Your task to perform on an android device: toggle improve location accuracy Image 0: 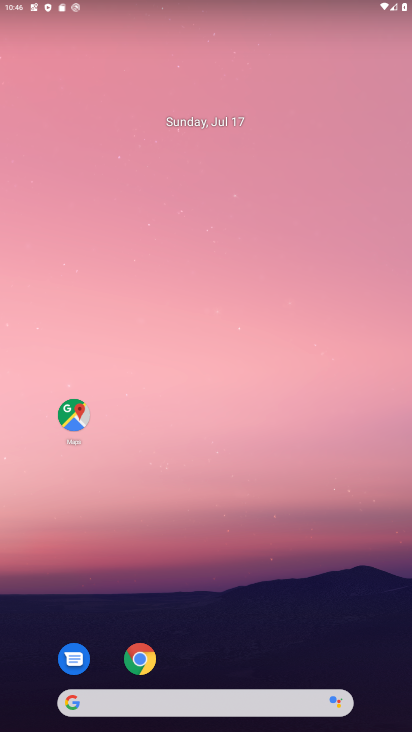
Step 0: drag from (292, 391) to (252, 103)
Your task to perform on an android device: toggle improve location accuracy Image 1: 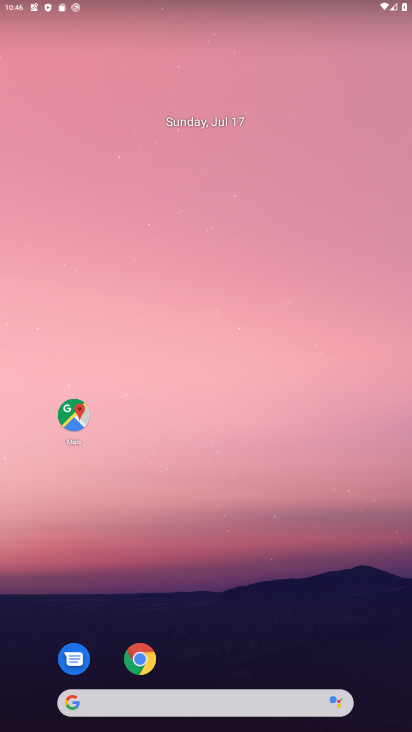
Step 1: drag from (305, 628) to (262, 65)
Your task to perform on an android device: toggle improve location accuracy Image 2: 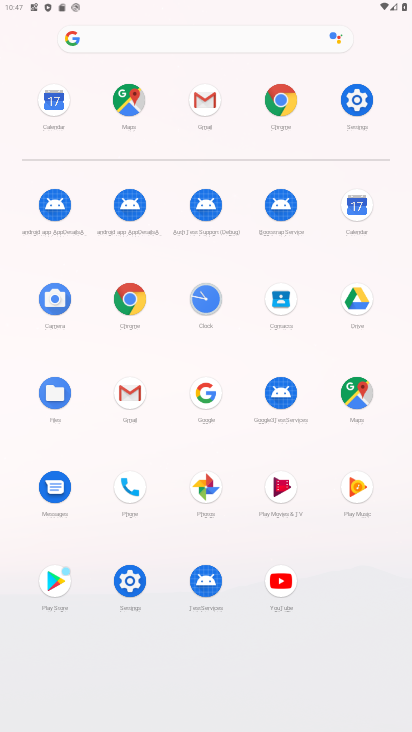
Step 2: click (352, 103)
Your task to perform on an android device: toggle improve location accuracy Image 3: 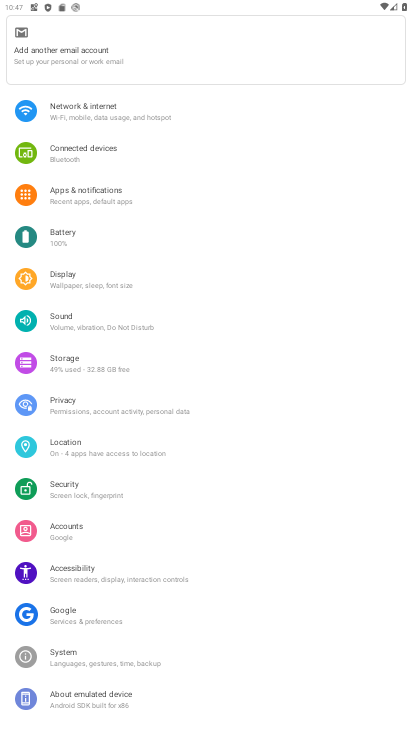
Step 3: click (104, 447)
Your task to perform on an android device: toggle improve location accuracy Image 4: 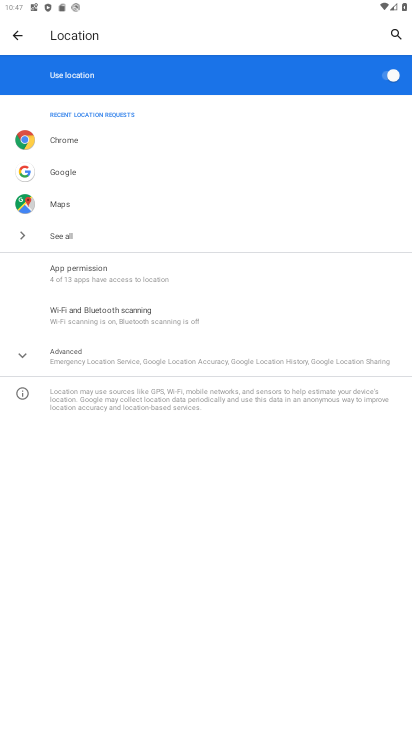
Step 4: click (135, 363)
Your task to perform on an android device: toggle improve location accuracy Image 5: 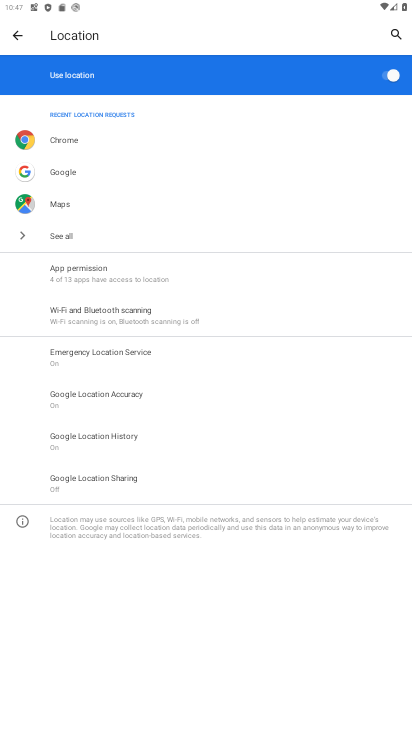
Step 5: click (124, 403)
Your task to perform on an android device: toggle improve location accuracy Image 6: 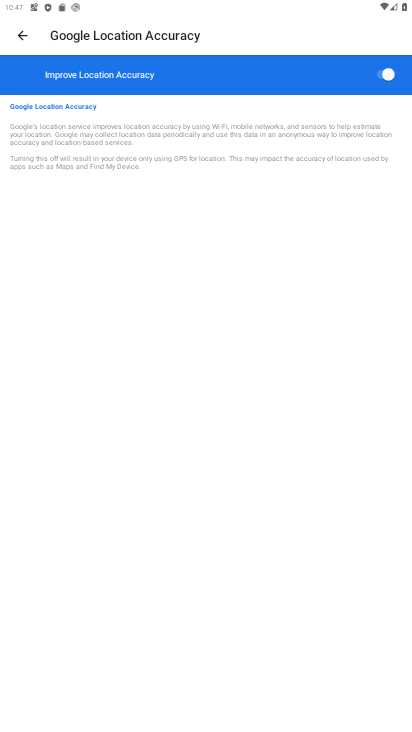
Step 6: click (383, 72)
Your task to perform on an android device: toggle improve location accuracy Image 7: 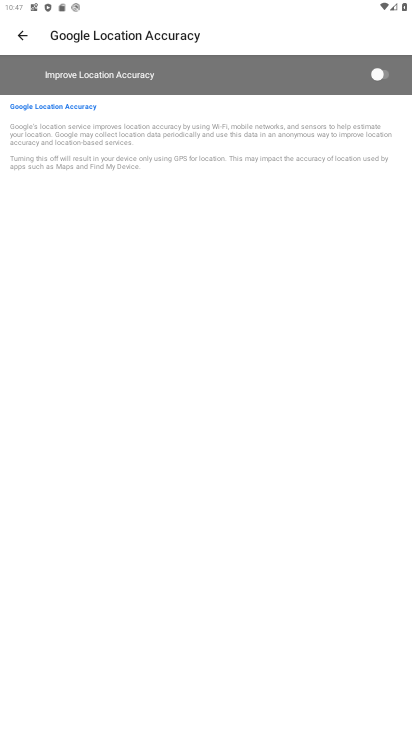
Step 7: task complete